Your task to perform on an android device: turn on location history Image 0: 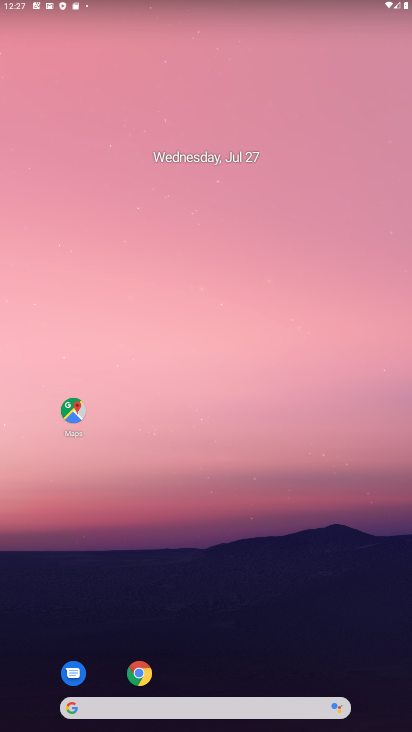
Step 0: drag from (224, 667) to (243, 145)
Your task to perform on an android device: turn on location history Image 1: 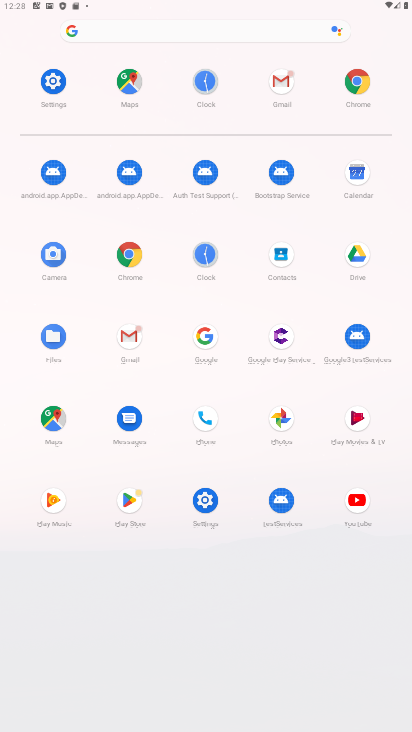
Step 1: click (53, 76)
Your task to perform on an android device: turn on location history Image 2: 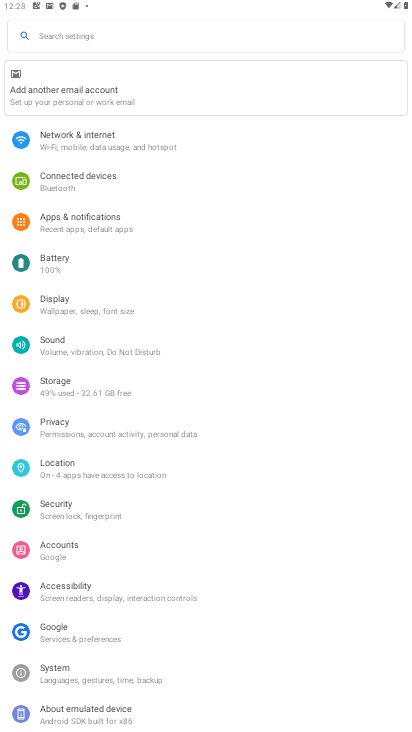
Step 2: click (98, 465)
Your task to perform on an android device: turn on location history Image 3: 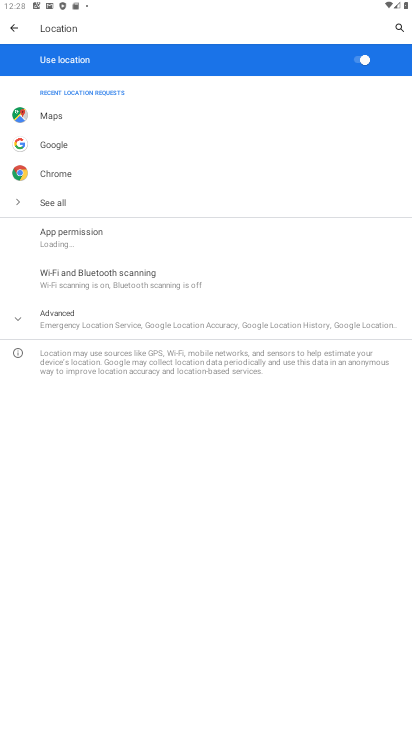
Step 3: click (134, 322)
Your task to perform on an android device: turn on location history Image 4: 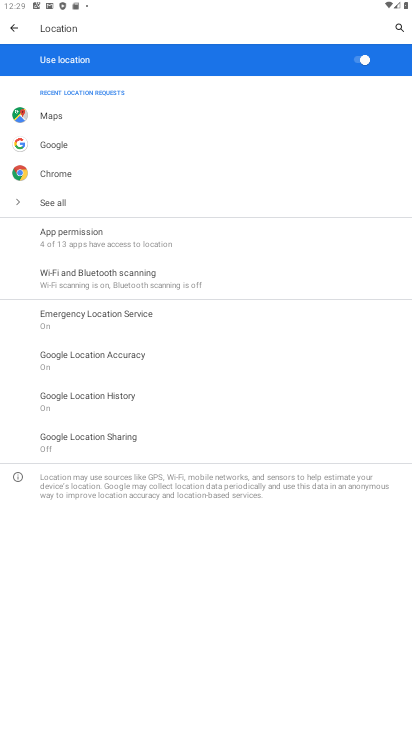
Step 4: click (88, 389)
Your task to perform on an android device: turn on location history Image 5: 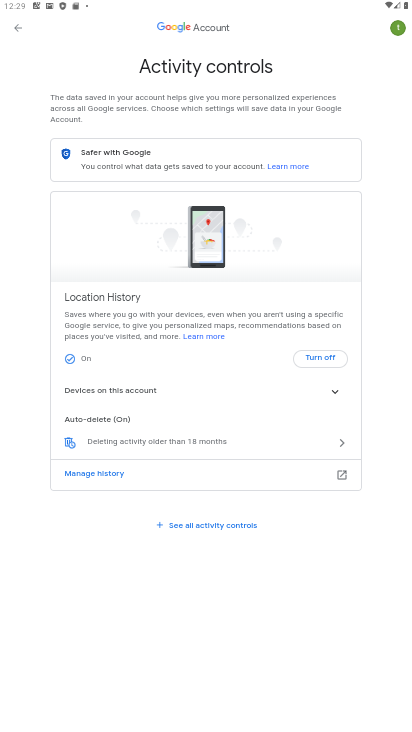
Step 5: click (293, 357)
Your task to perform on an android device: turn on location history Image 6: 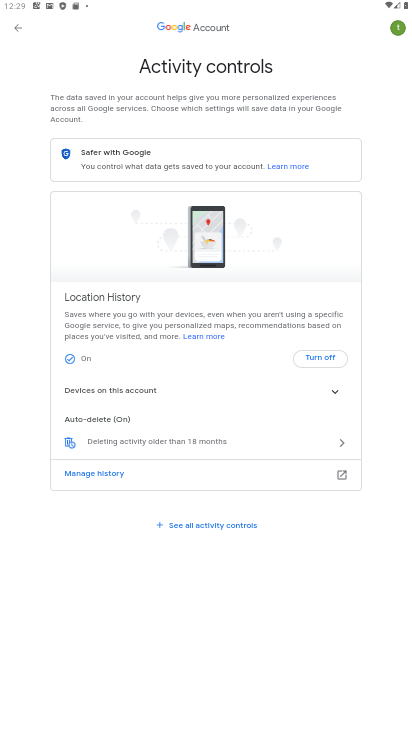
Step 6: click (307, 357)
Your task to perform on an android device: turn on location history Image 7: 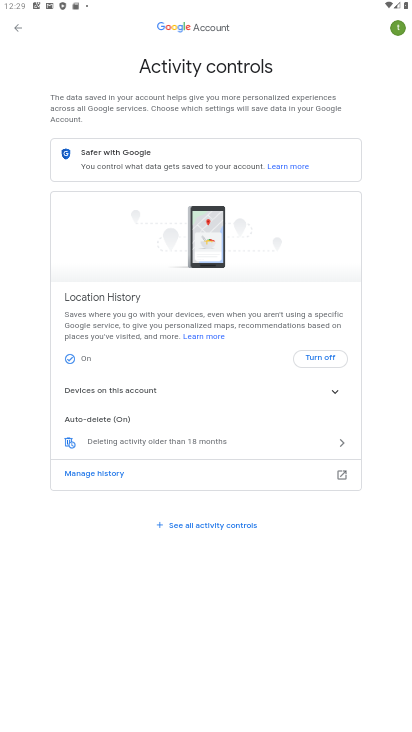
Step 7: click (307, 357)
Your task to perform on an android device: turn on location history Image 8: 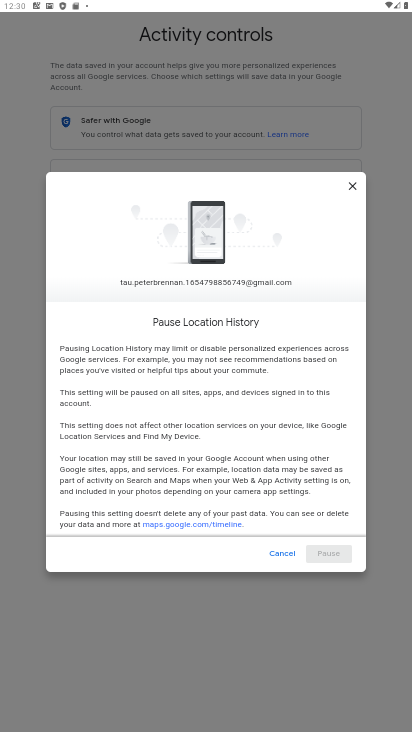
Step 8: task complete